Your task to perform on an android device: Open settings Image 0: 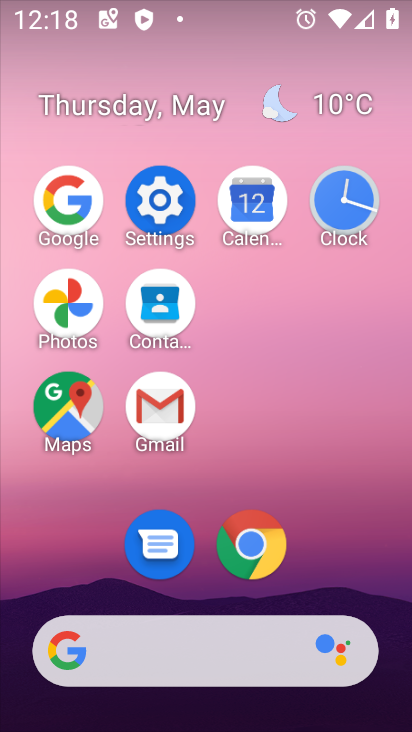
Step 0: click (142, 193)
Your task to perform on an android device: Open settings Image 1: 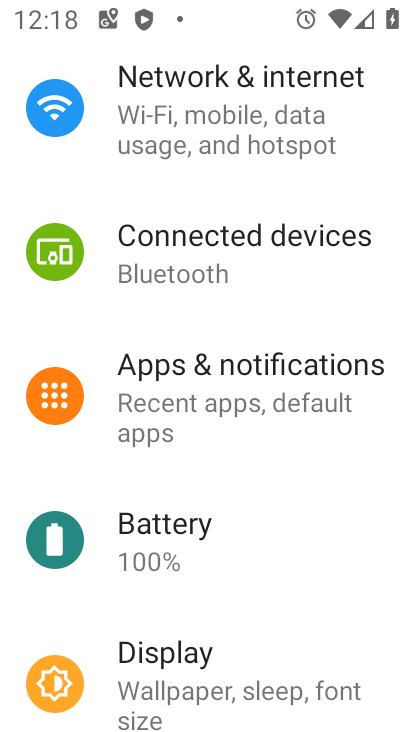
Step 1: task complete